Your task to perform on an android device: Go to eBay Image 0: 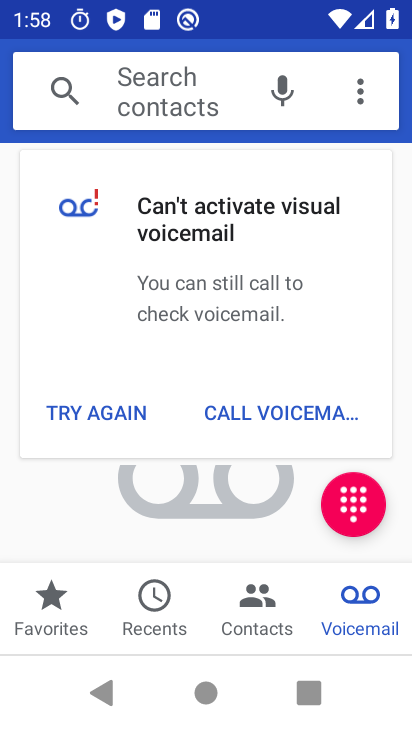
Step 0: press home button
Your task to perform on an android device: Go to eBay Image 1: 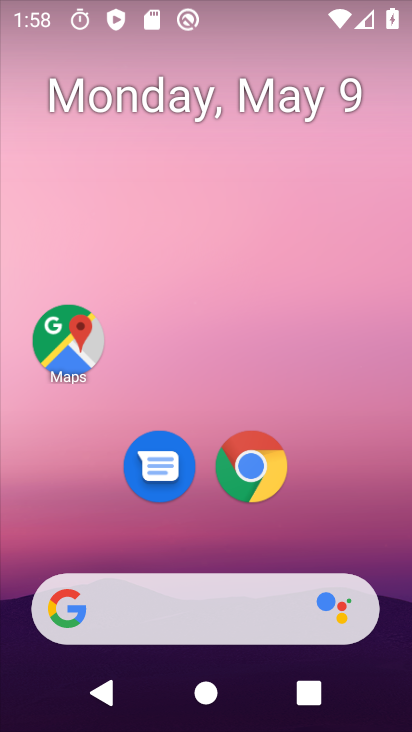
Step 1: drag from (278, 592) to (280, 330)
Your task to perform on an android device: Go to eBay Image 2: 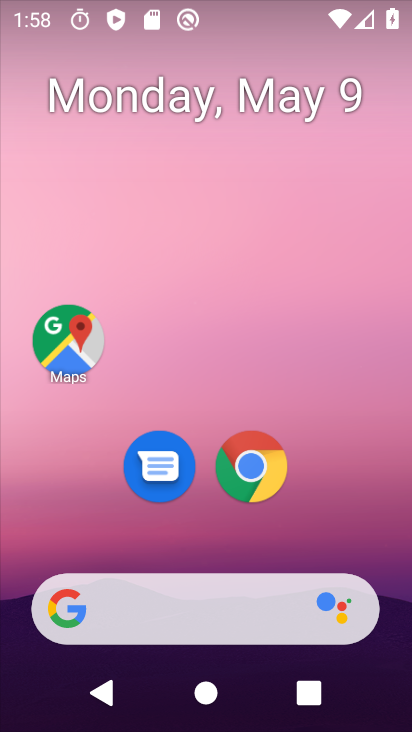
Step 2: click (265, 493)
Your task to perform on an android device: Go to eBay Image 3: 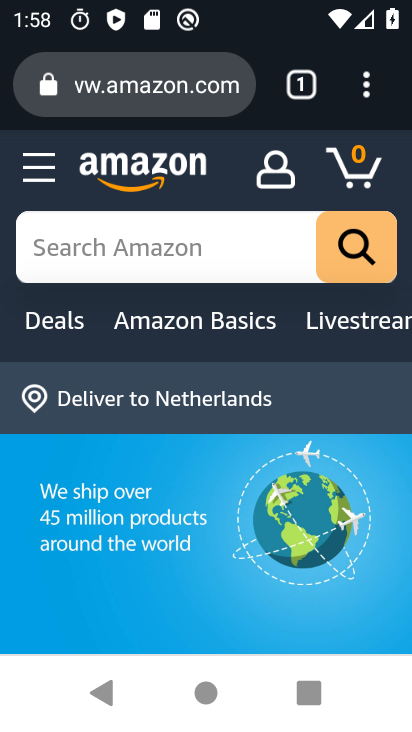
Step 3: click (202, 83)
Your task to perform on an android device: Go to eBay Image 4: 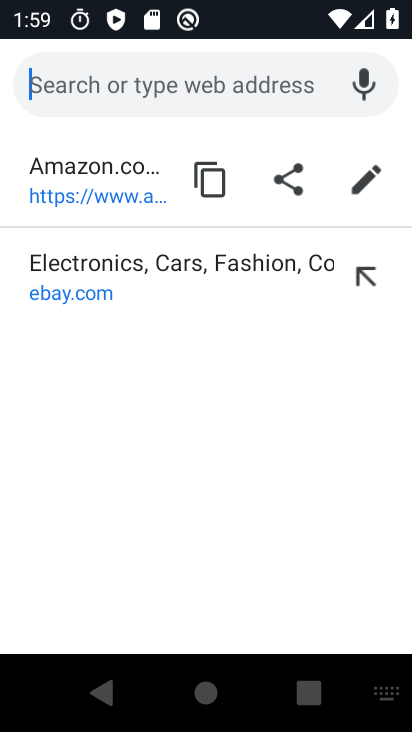
Step 4: click (175, 290)
Your task to perform on an android device: Go to eBay Image 5: 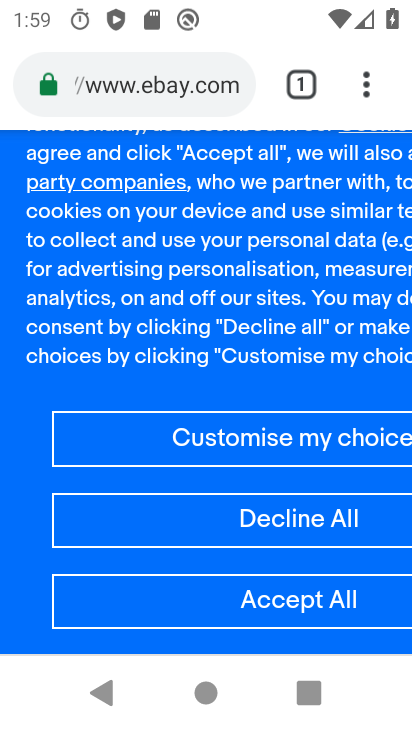
Step 5: task complete